Your task to perform on an android device: What's on my calendar today? Image 0: 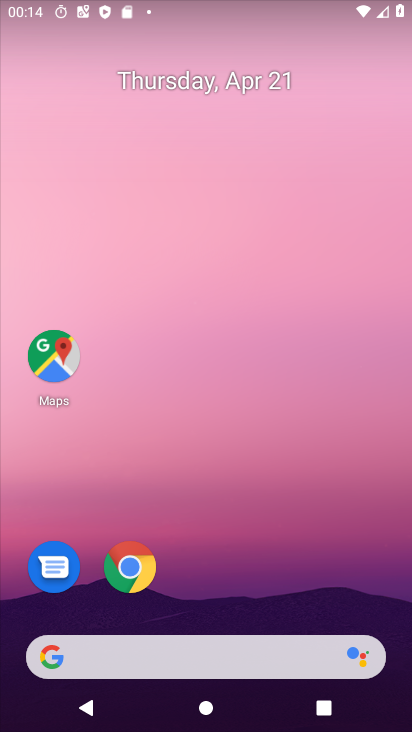
Step 0: drag from (280, 556) to (282, 165)
Your task to perform on an android device: What's on my calendar today? Image 1: 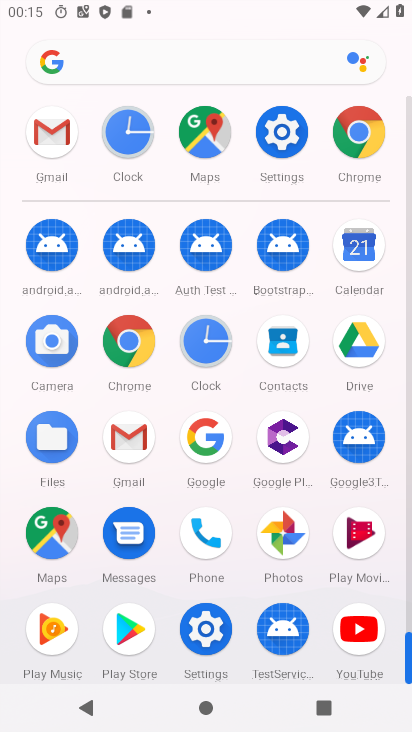
Step 1: click (364, 243)
Your task to perform on an android device: What's on my calendar today? Image 2: 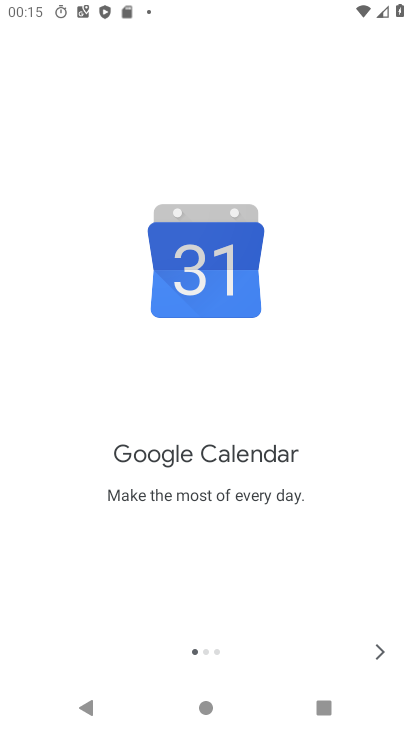
Step 2: click (375, 648)
Your task to perform on an android device: What's on my calendar today? Image 3: 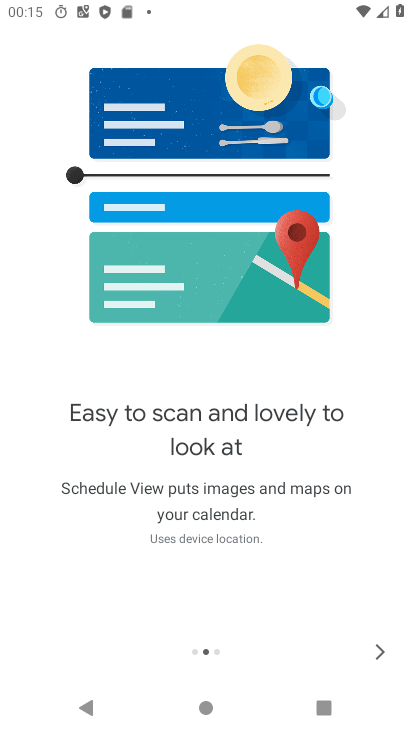
Step 3: click (375, 648)
Your task to perform on an android device: What's on my calendar today? Image 4: 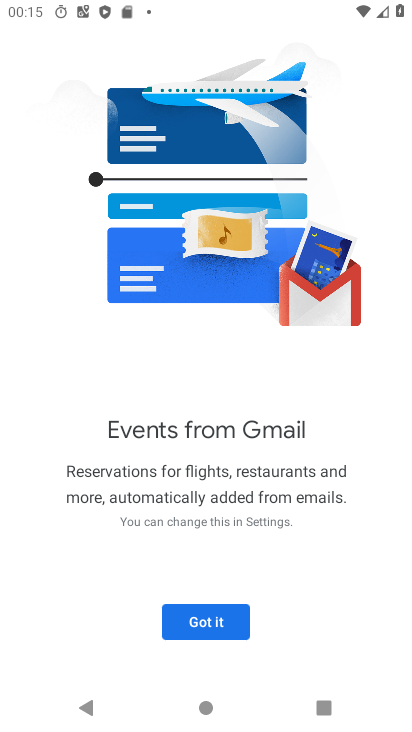
Step 4: click (200, 615)
Your task to perform on an android device: What's on my calendar today? Image 5: 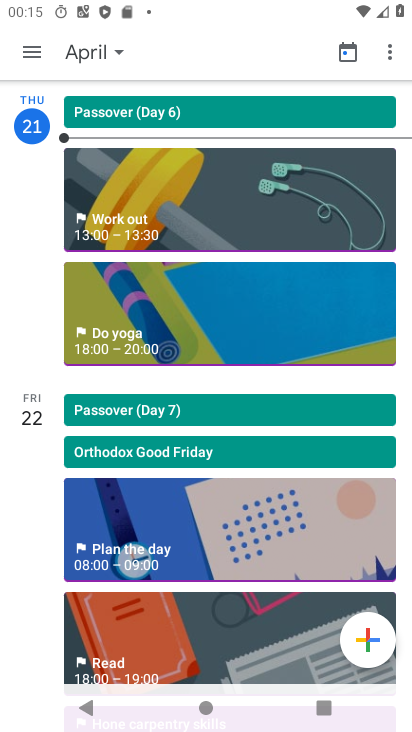
Step 5: click (26, 44)
Your task to perform on an android device: What's on my calendar today? Image 6: 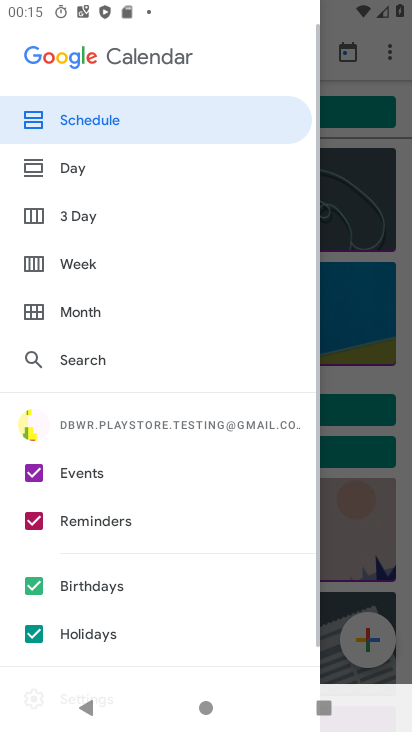
Step 6: click (119, 312)
Your task to perform on an android device: What's on my calendar today? Image 7: 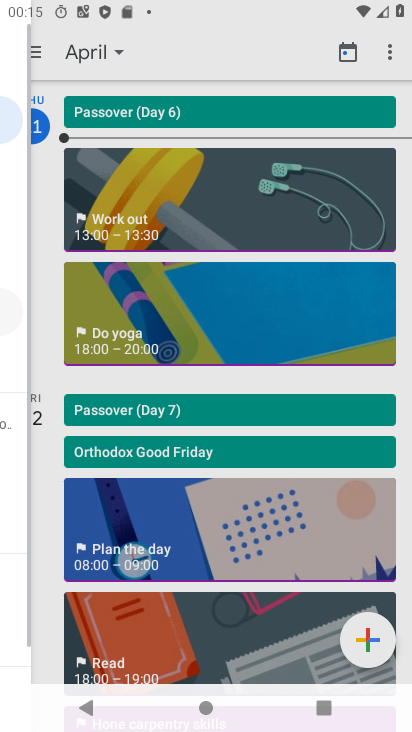
Step 7: click (119, 312)
Your task to perform on an android device: What's on my calendar today? Image 8: 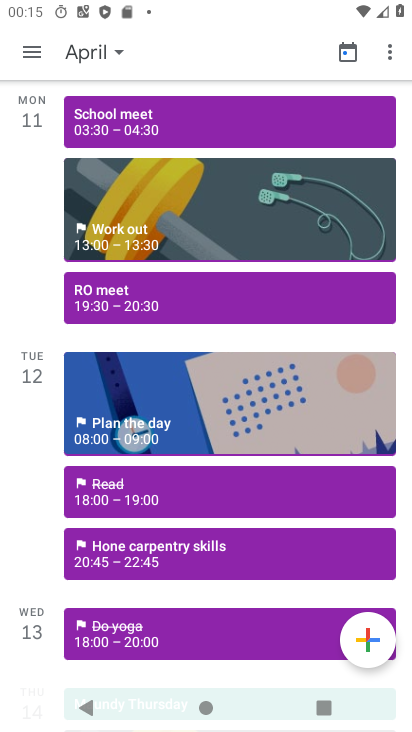
Step 8: click (38, 52)
Your task to perform on an android device: What's on my calendar today? Image 9: 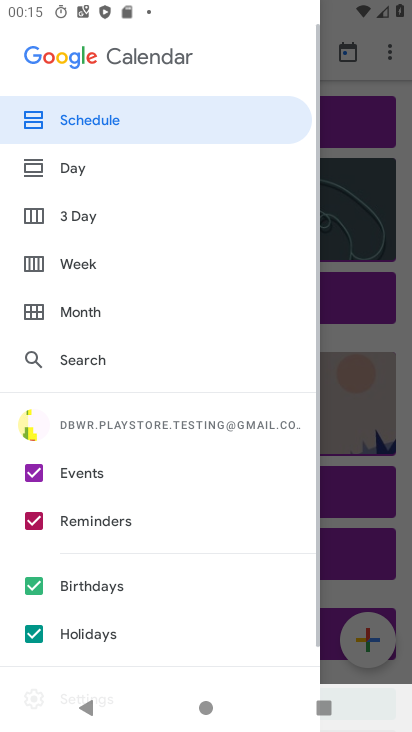
Step 9: click (94, 322)
Your task to perform on an android device: What's on my calendar today? Image 10: 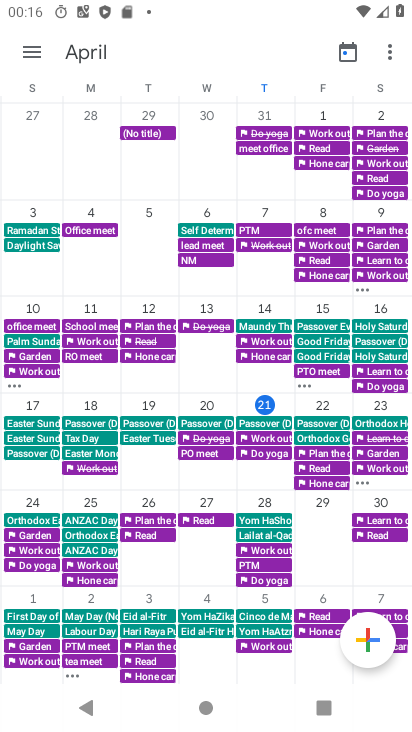
Step 10: task complete